Your task to perform on an android device: change the clock display to show seconds Image 0: 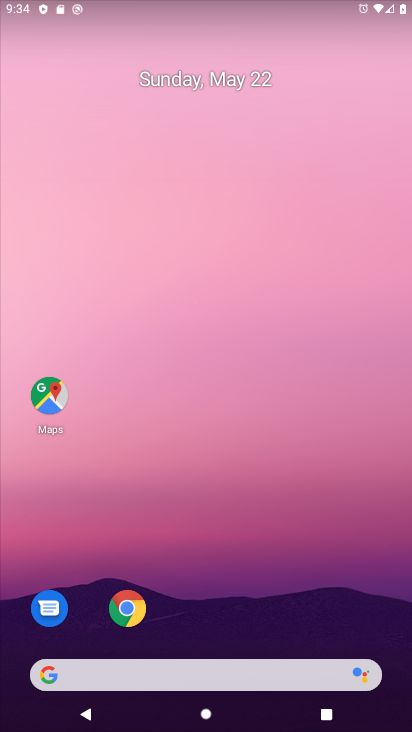
Step 0: drag from (239, 584) to (138, 14)
Your task to perform on an android device: change the clock display to show seconds Image 1: 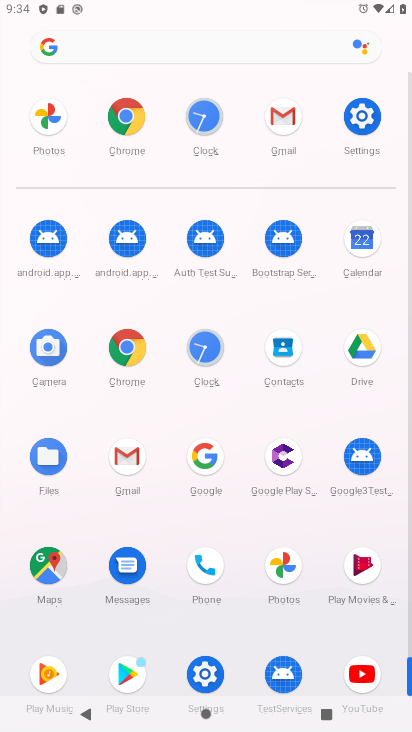
Step 1: drag from (11, 547) to (12, 170)
Your task to perform on an android device: change the clock display to show seconds Image 2: 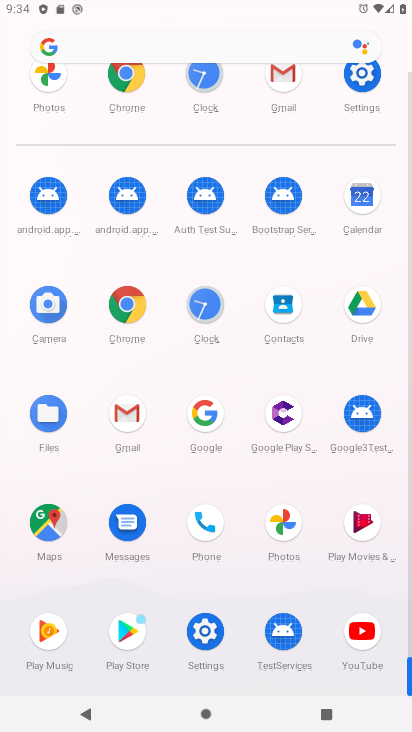
Step 2: click (203, 76)
Your task to perform on an android device: change the clock display to show seconds Image 3: 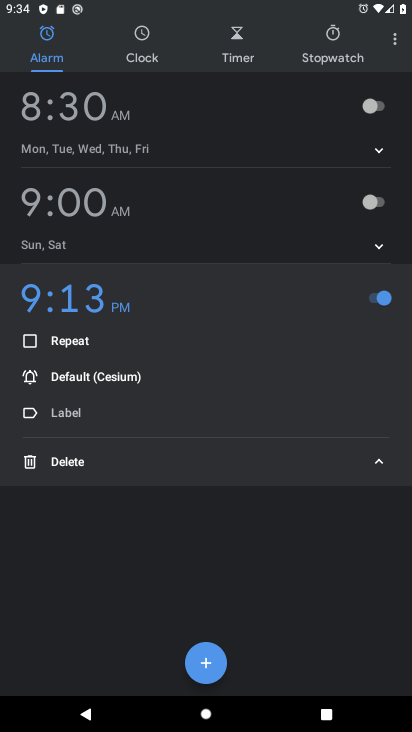
Step 3: drag from (400, 37) to (345, 75)
Your task to perform on an android device: change the clock display to show seconds Image 4: 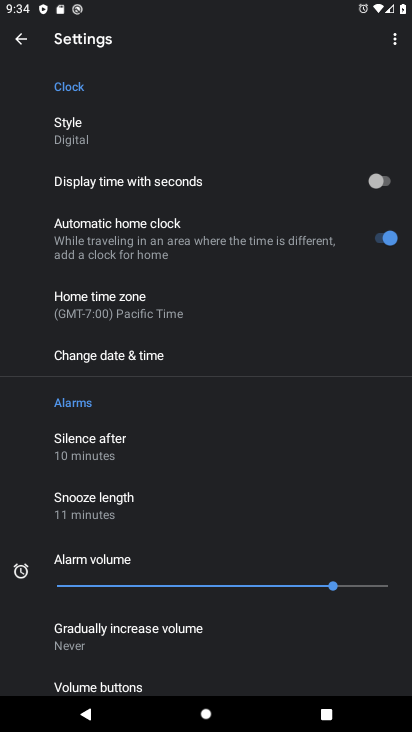
Step 4: click (378, 174)
Your task to perform on an android device: change the clock display to show seconds Image 5: 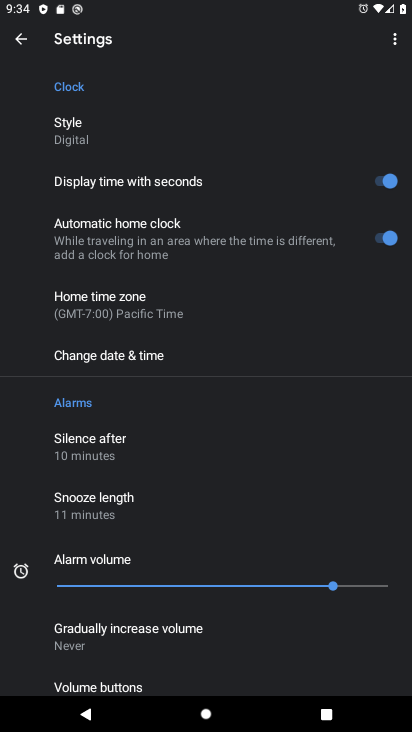
Step 5: task complete